Your task to perform on an android device: Toggle the flashlight Image 0: 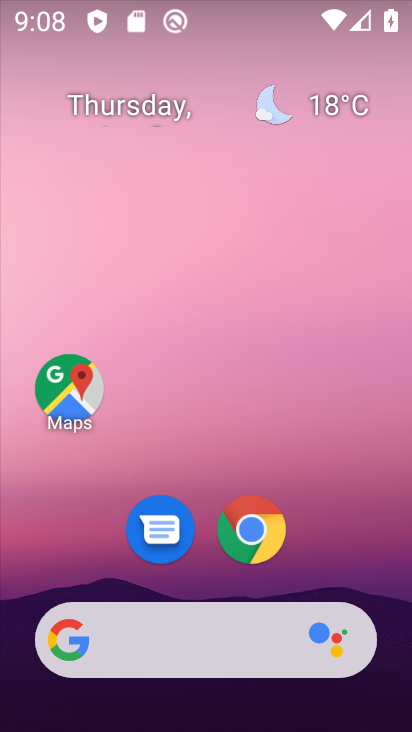
Step 0: click (338, 544)
Your task to perform on an android device: Toggle the flashlight Image 1: 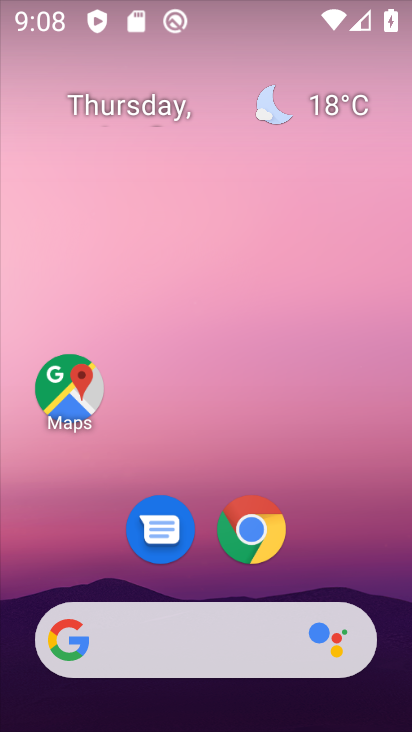
Step 1: drag from (379, 712) to (348, 32)
Your task to perform on an android device: Toggle the flashlight Image 2: 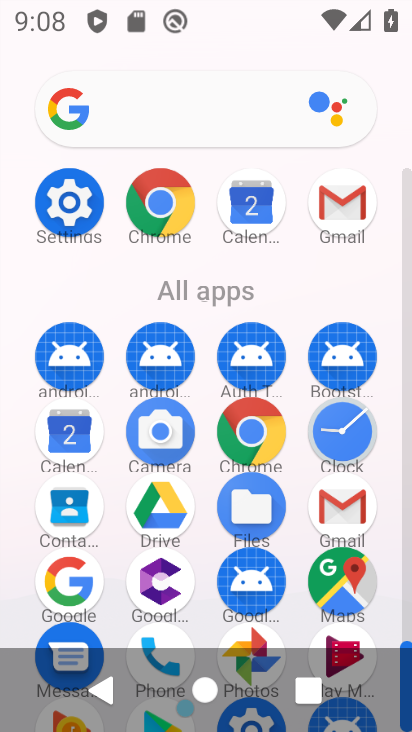
Step 2: click (59, 214)
Your task to perform on an android device: Toggle the flashlight Image 3: 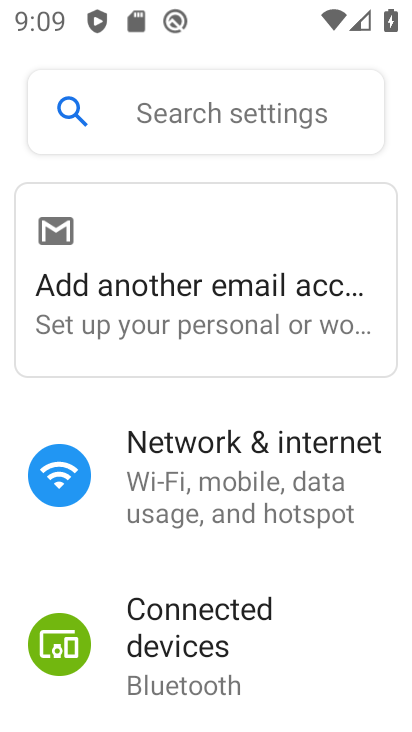
Step 3: drag from (246, 670) to (232, 255)
Your task to perform on an android device: Toggle the flashlight Image 4: 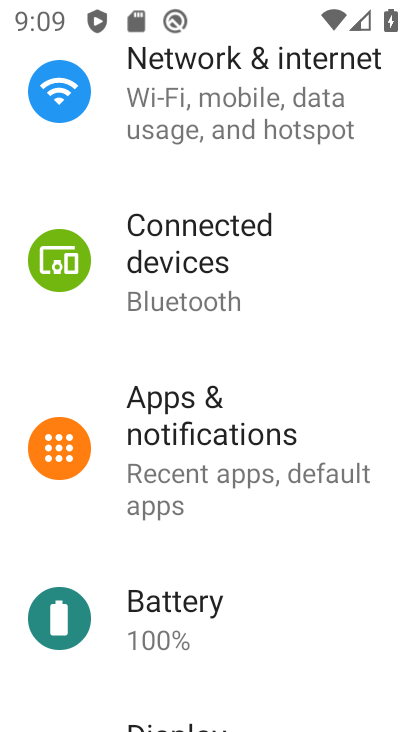
Step 4: drag from (175, 676) to (191, 380)
Your task to perform on an android device: Toggle the flashlight Image 5: 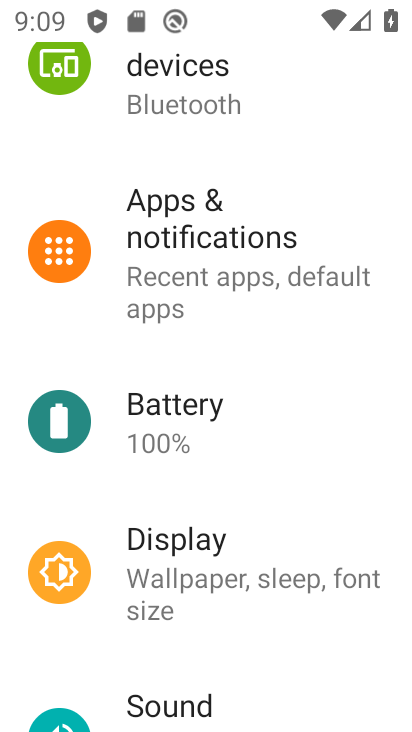
Step 5: click (143, 534)
Your task to perform on an android device: Toggle the flashlight Image 6: 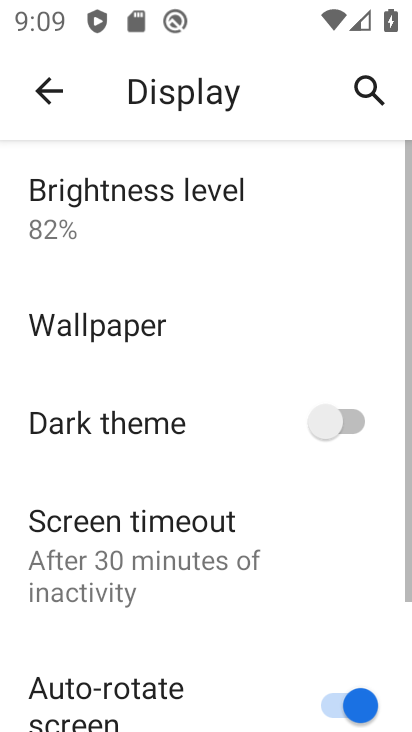
Step 6: task complete